Your task to perform on an android device: Is it going to rain today? Image 0: 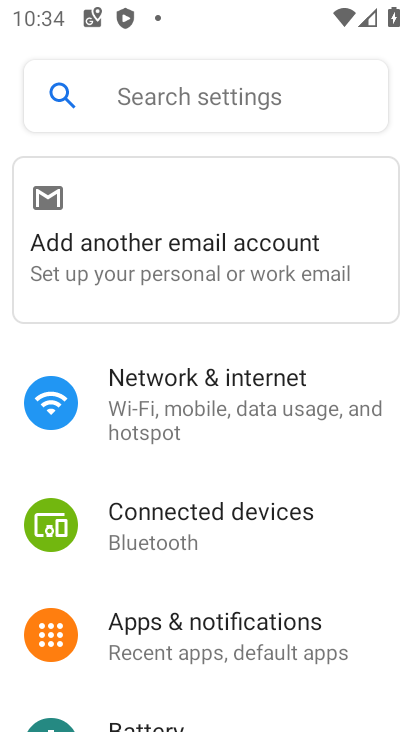
Step 0: press back button
Your task to perform on an android device: Is it going to rain today? Image 1: 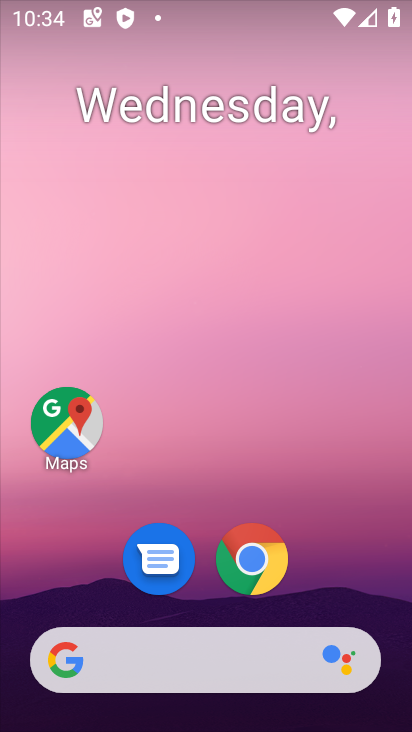
Step 1: drag from (344, 571) to (262, 69)
Your task to perform on an android device: Is it going to rain today? Image 2: 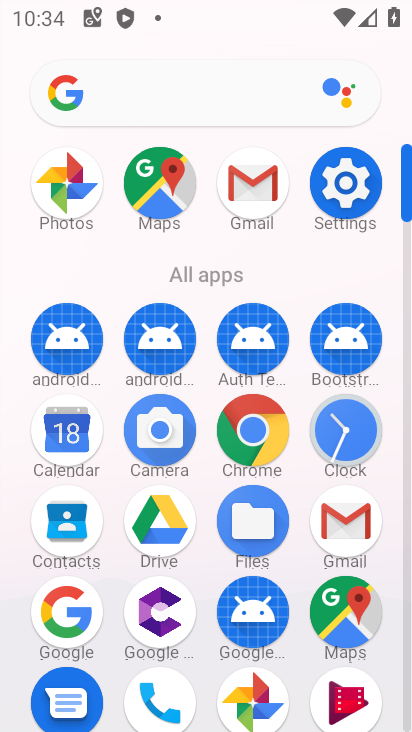
Step 2: drag from (193, 570) to (174, 307)
Your task to perform on an android device: Is it going to rain today? Image 3: 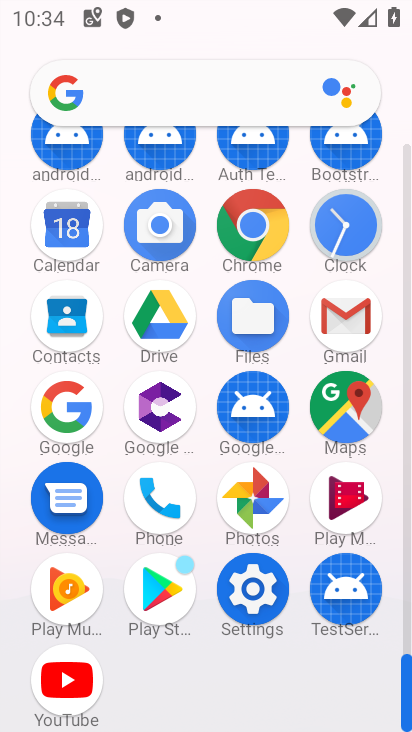
Step 3: click (59, 407)
Your task to perform on an android device: Is it going to rain today? Image 4: 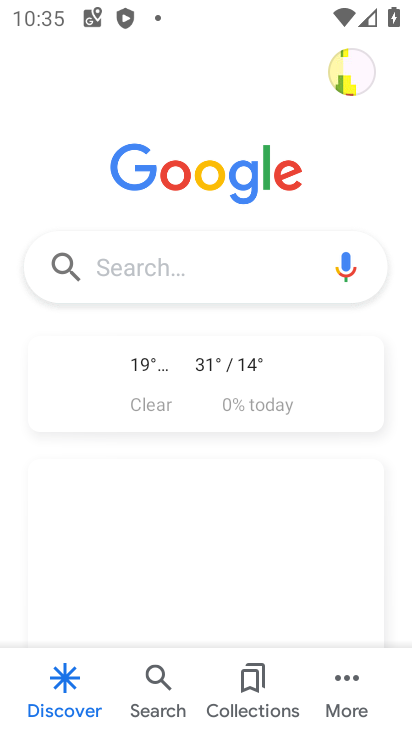
Step 4: click (194, 252)
Your task to perform on an android device: Is it going to rain today? Image 5: 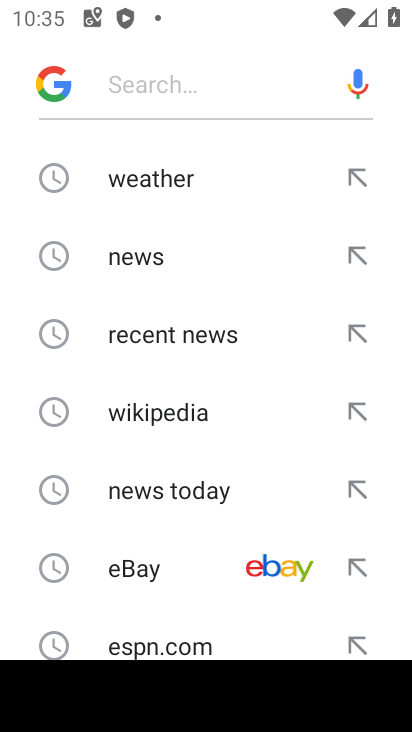
Step 5: type "Is it going to rain today"
Your task to perform on an android device: Is it going to rain today? Image 6: 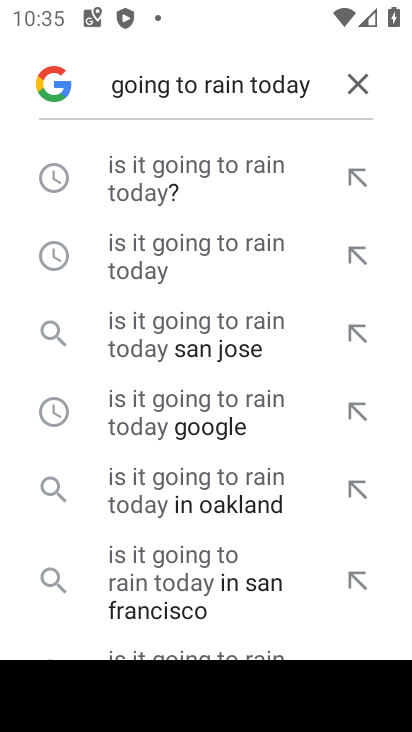
Step 6: click (193, 163)
Your task to perform on an android device: Is it going to rain today? Image 7: 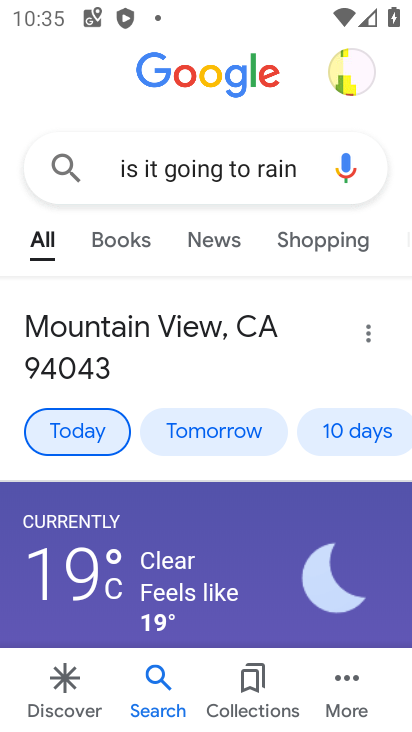
Step 7: task complete